Your task to perform on an android device: Is it going to rain today? Image 0: 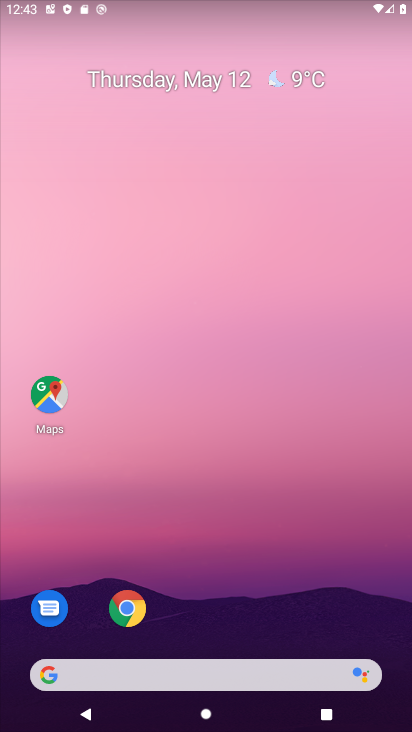
Step 0: click (218, 667)
Your task to perform on an android device: Is it going to rain today? Image 1: 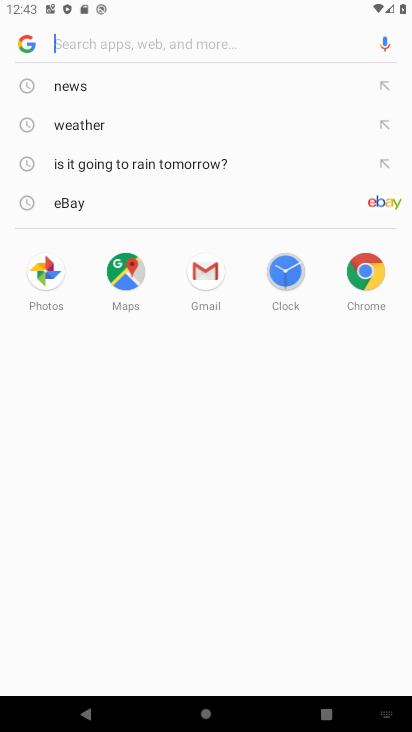
Step 1: type "is it going to rain today"
Your task to perform on an android device: Is it going to rain today? Image 2: 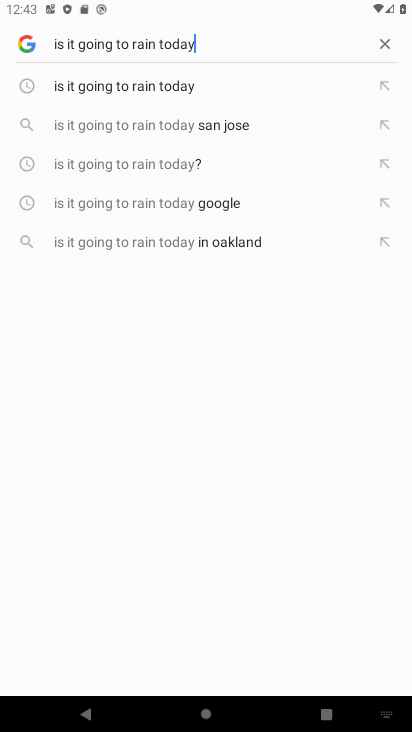
Step 2: click (244, 90)
Your task to perform on an android device: Is it going to rain today? Image 3: 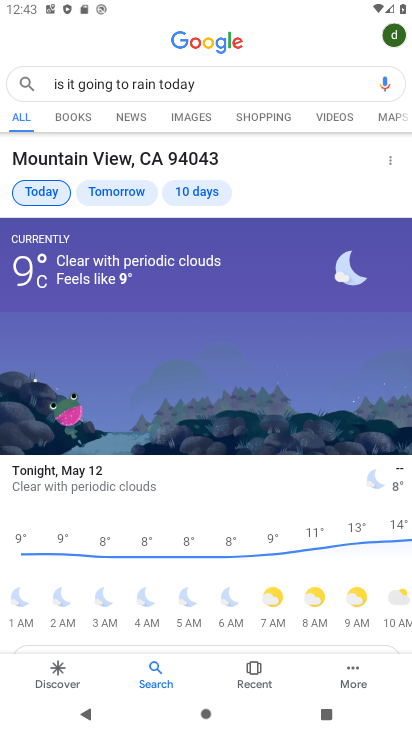
Step 3: task complete